Your task to perform on an android device: show emergency info Image 0: 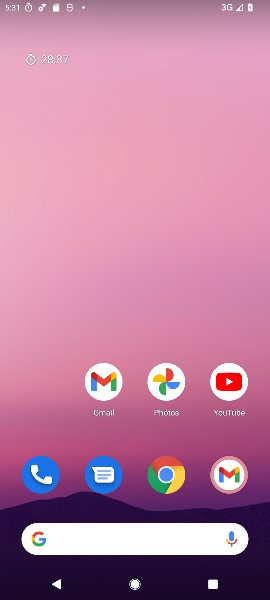
Step 0: drag from (54, 430) to (39, 120)
Your task to perform on an android device: show emergency info Image 1: 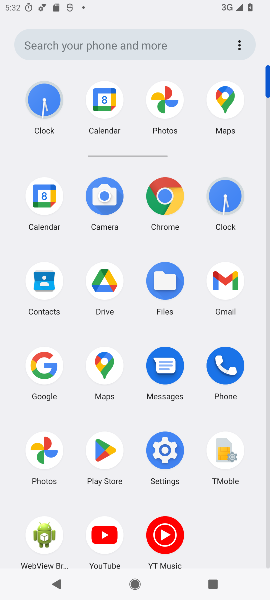
Step 1: click (166, 450)
Your task to perform on an android device: show emergency info Image 2: 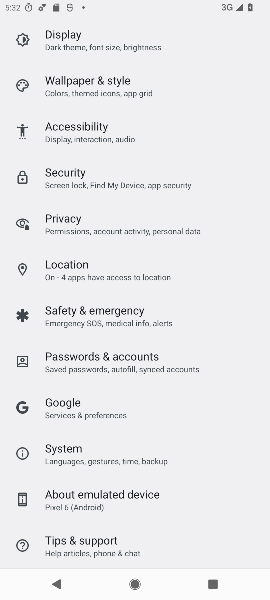
Step 2: drag from (238, 218) to (237, 304)
Your task to perform on an android device: show emergency info Image 3: 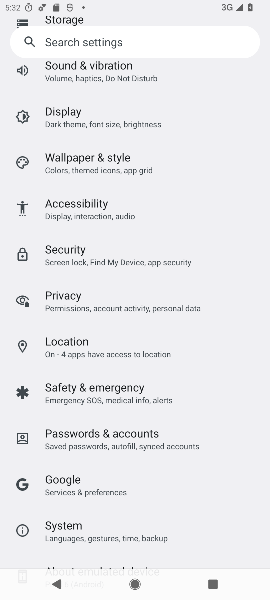
Step 3: drag from (233, 187) to (239, 287)
Your task to perform on an android device: show emergency info Image 4: 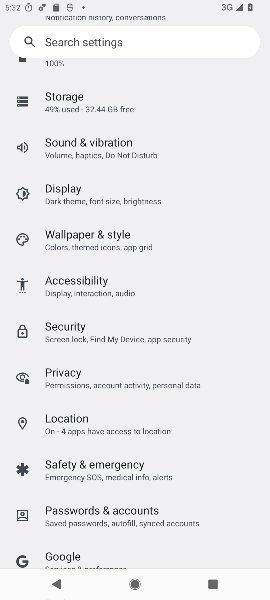
Step 4: drag from (218, 112) to (231, 269)
Your task to perform on an android device: show emergency info Image 5: 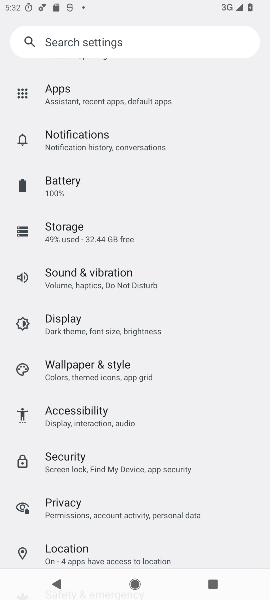
Step 5: drag from (215, 88) to (217, 240)
Your task to perform on an android device: show emergency info Image 6: 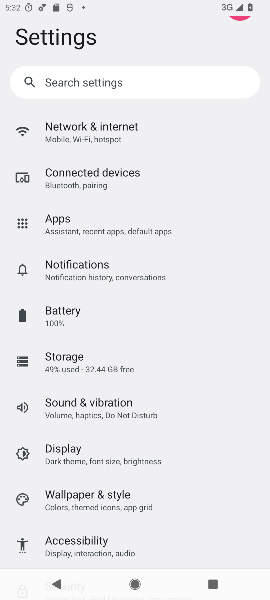
Step 6: drag from (215, 283) to (216, 209)
Your task to perform on an android device: show emergency info Image 7: 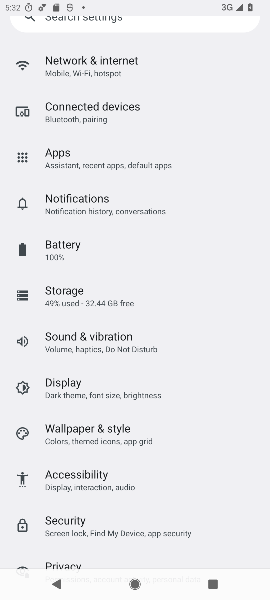
Step 7: drag from (211, 286) to (210, 234)
Your task to perform on an android device: show emergency info Image 8: 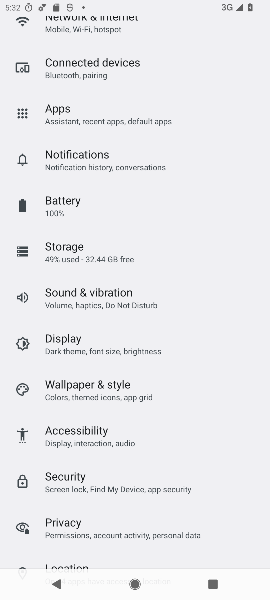
Step 8: drag from (217, 379) to (212, 250)
Your task to perform on an android device: show emergency info Image 9: 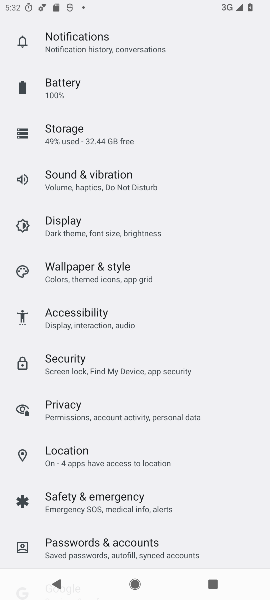
Step 9: drag from (214, 375) to (215, 274)
Your task to perform on an android device: show emergency info Image 10: 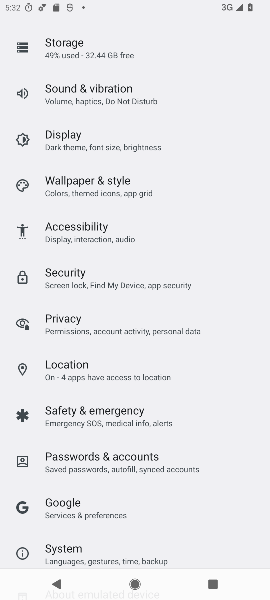
Step 10: drag from (218, 387) to (217, 271)
Your task to perform on an android device: show emergency info Image 11: 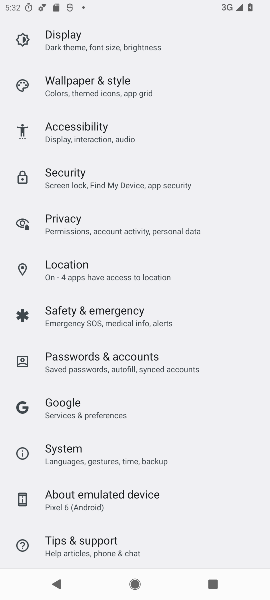
Step 11: click (167, 318)
Your task to perform on an android device: show emergency info Image 12: 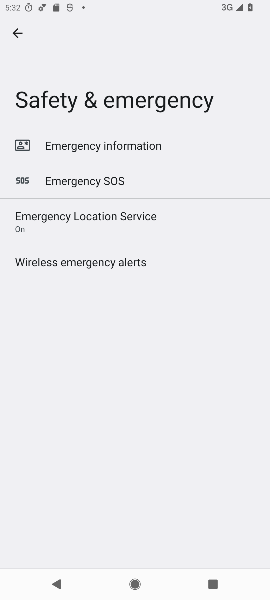
Step 12: click (129, 146)
Your task to perform on an android device: show emergency info Image 13: 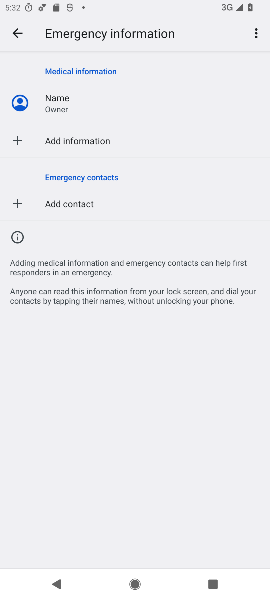
Step 13: task complete